Your task to perform on an android device: make emails show in primary in the gmail app Image 0: 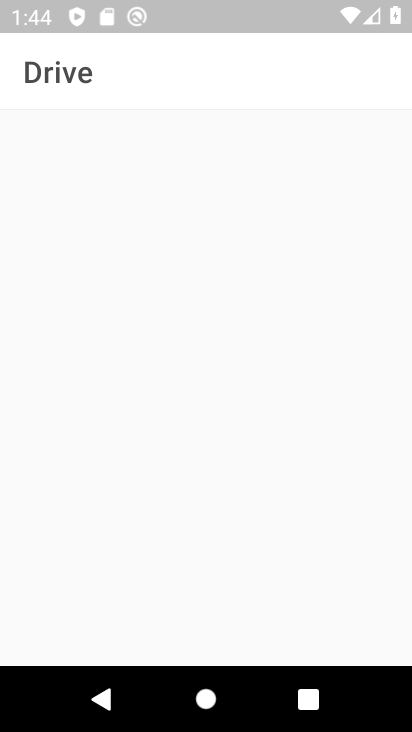
Step 0: press home button
Your task to perform on an android device: make emails show in primary in the gmail app Image 1: 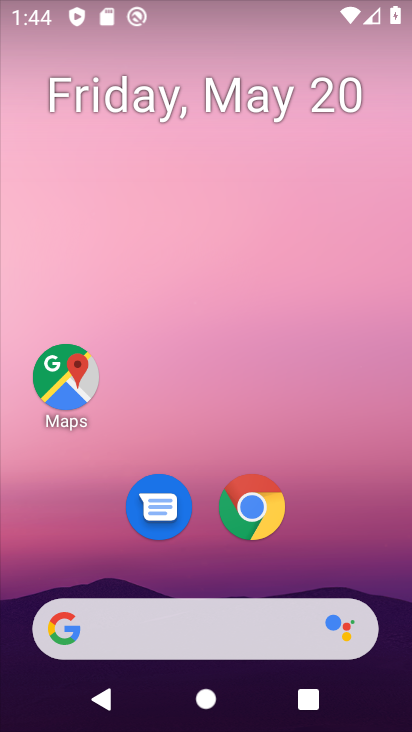
Step 1: drag from (231, 570) to (239, 192)
Your task to perform on an android device: make emails show in primary in the gmail app Image 2: 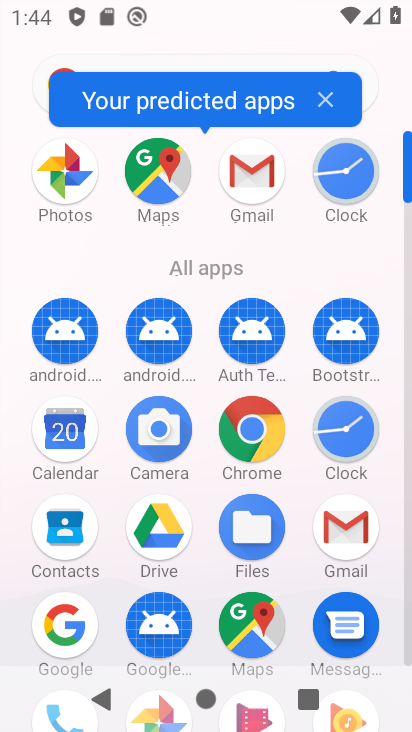
Step 2: click (244, 199)
Your task to perform on an android device: make emails show in primary in the gmail app Image 3: 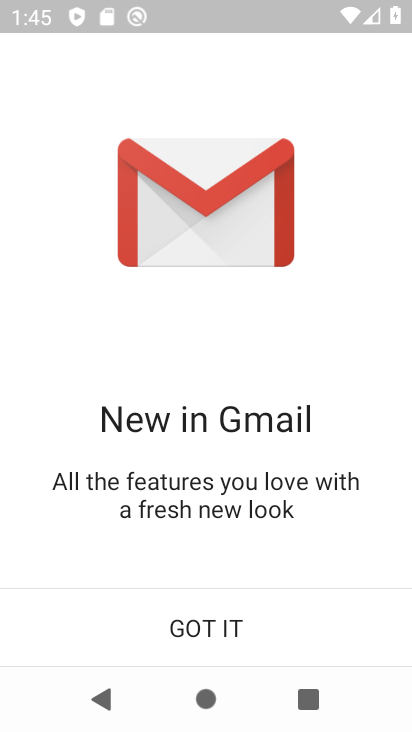
Step 3: click (176, 616)
Your task to perform on an android device: make emails show in primary in the gmail app Image 4: 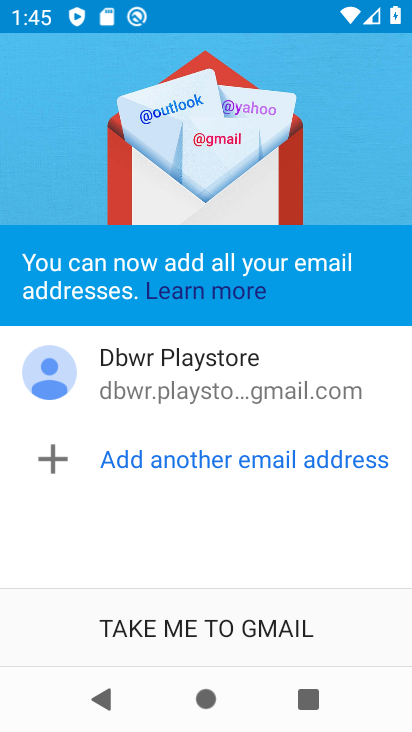
Step 4: click (176, 616)
Your task to perform on an android device: make emails show in primary in the gmail app Image 5: 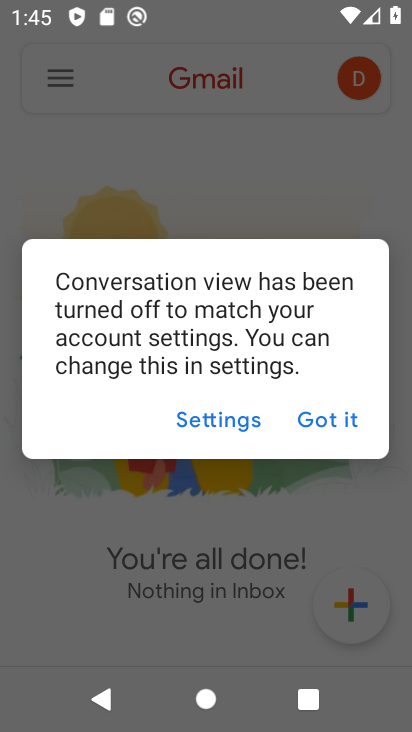
Step 5: click (321, 416)
Your task to perform on an android device: make emails show in primary in the gmail app Image 6: 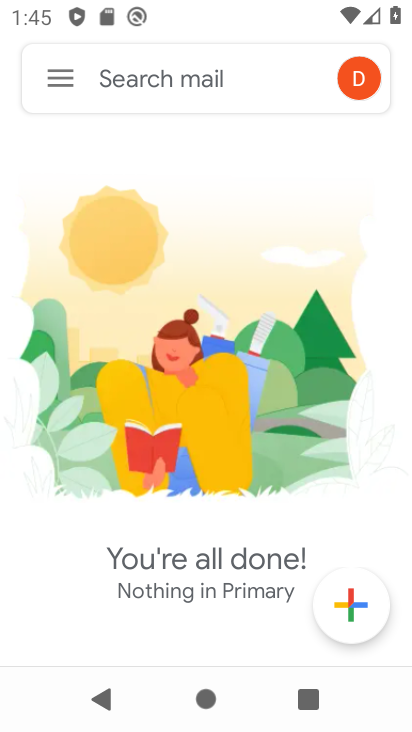
Step 6: click (73, 83)
Your task to perform on an android device: make emails show in primary in the gmail app Image 7: 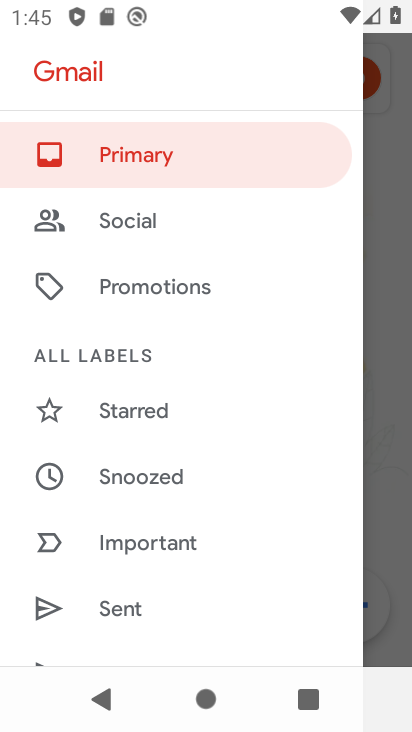
Step 7: click (87, 134)
Your task to perform on an android device: make emails show in primary in the gmail app Image 8: 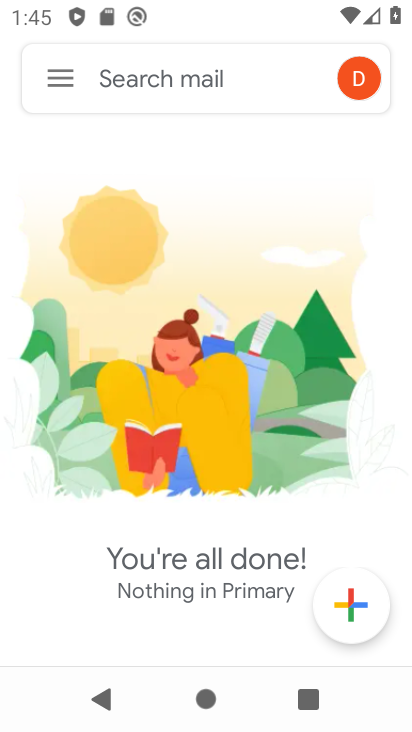
Step 8: task complete